Your task to perform on an android device: toggle javascript in the chrome app Image 0: 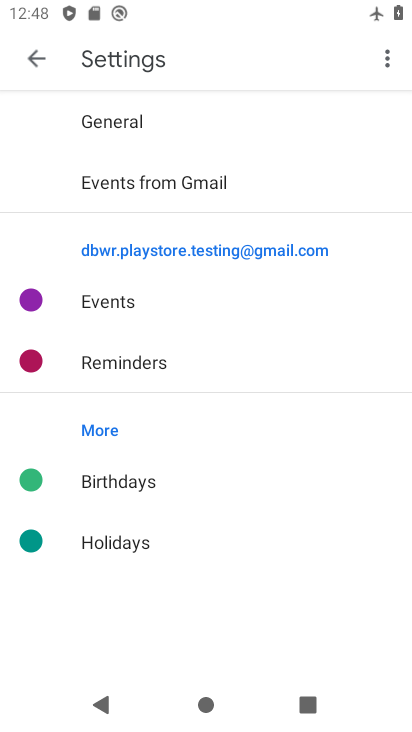
Step 0: press home button
Your task to perform on an android device: toggle javascript in the chrome app Image 1: 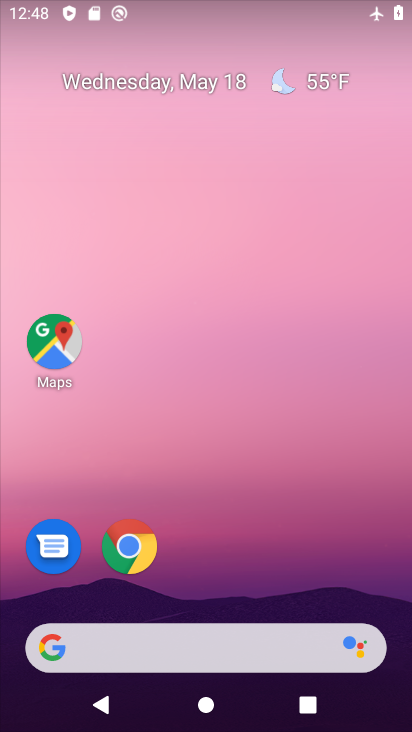
Step 1: drag from (376, 539) to (379, 103)
Your task to perform on an android device: toggle javascript in the chrome app Image 2: 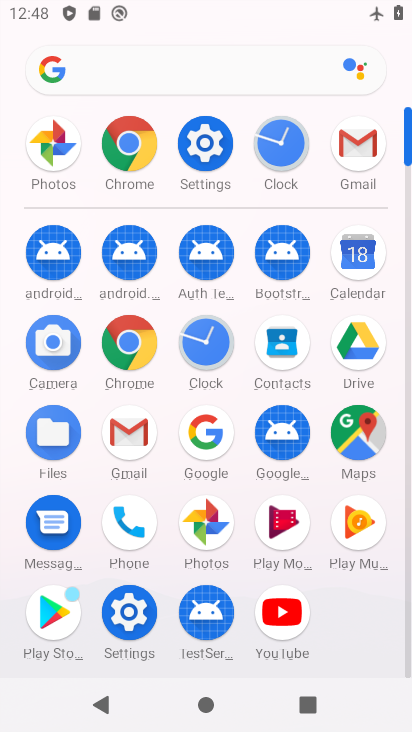
Step 2: click (146, 358)
Your task to perform on an android device: toggle javascript in the chrome app Image 3: 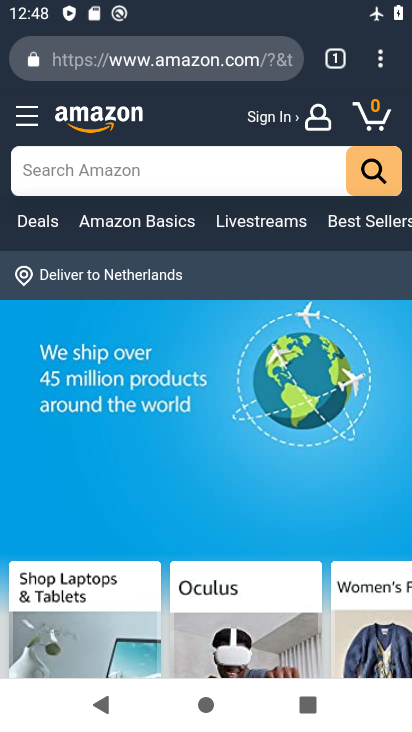
Step 3: click (396, 60)
Your task to perform on an android device: toggle javascript in the chrome app Image 4: 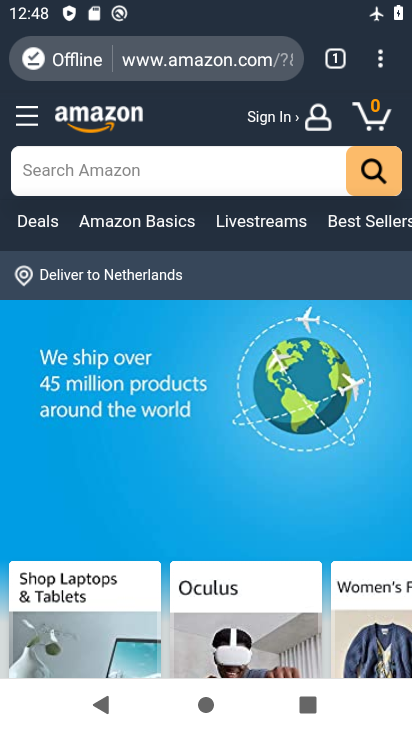
Step 4: drag from (396, 60) to (274, 589)
Your task to perform on an android device: toggle javascript in the chrome app Image 5: 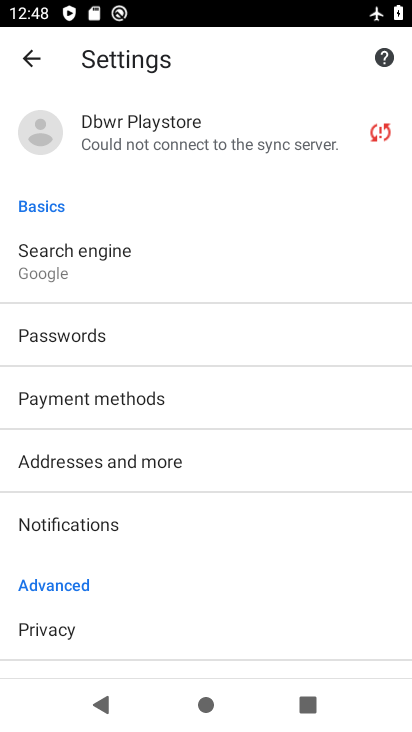
Step 5: drag from (268, 651) to (333, 292)
Your task to perform on an android device: toggle javascript in the chrome app Image 6: 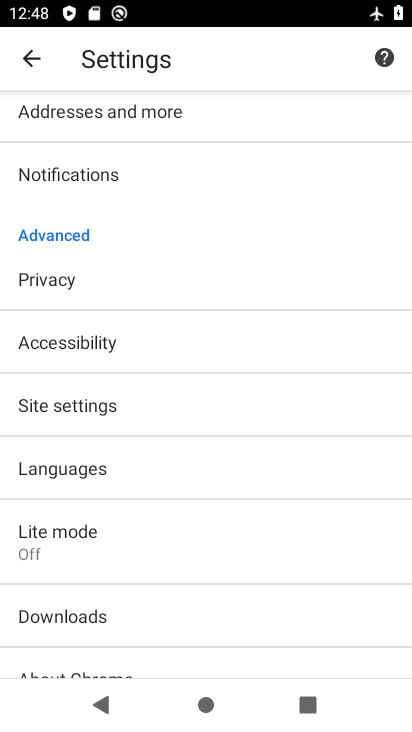
Step 6: click (131, 412)
Your task to perform on an android device: toggle javascript in the chrome app Image 7: 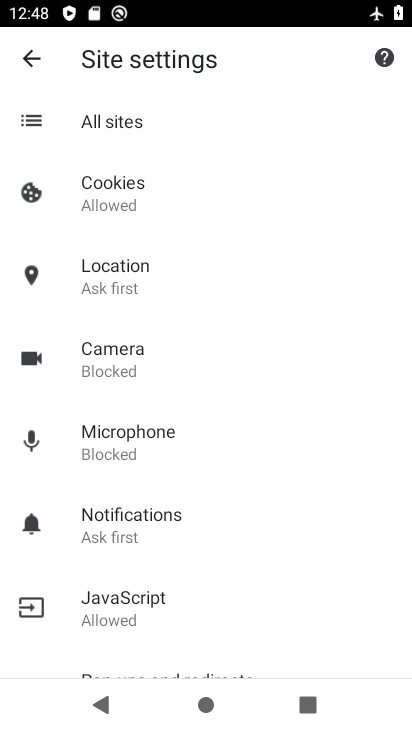
Step 7: click (180, 589)
Your task to perform on an android device: toggle javascript in the chrome app Image 8: 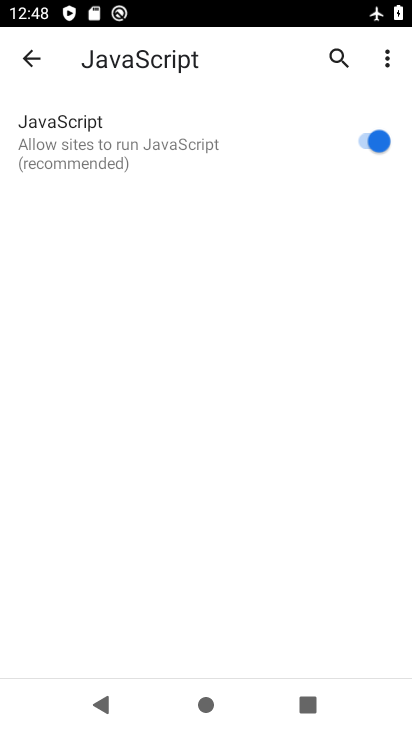
Step 8: click (358, 138)
Your task to perform on an android device: toggle javascript in the chrome app Image 9: 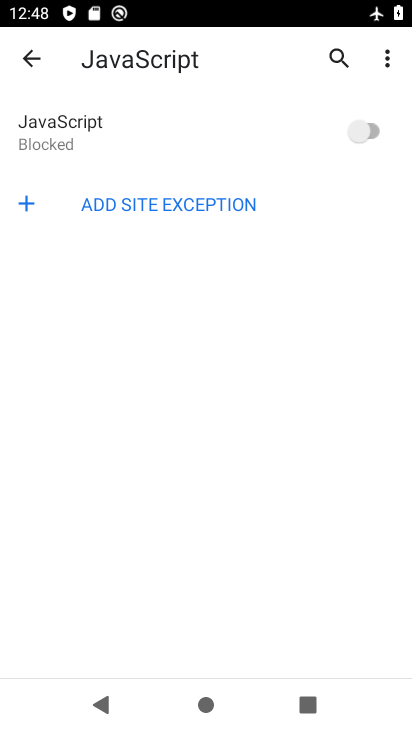
Step 9: task complete